Your task to perform on an android device: What's the weather? Image 0: 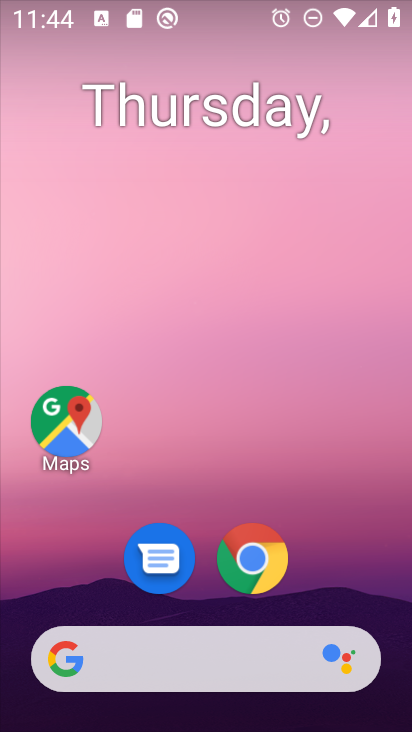
Step 0: drag from (49, 157) to (402, 218)
Your task to perform on an android device: What's the weather? Image 1: 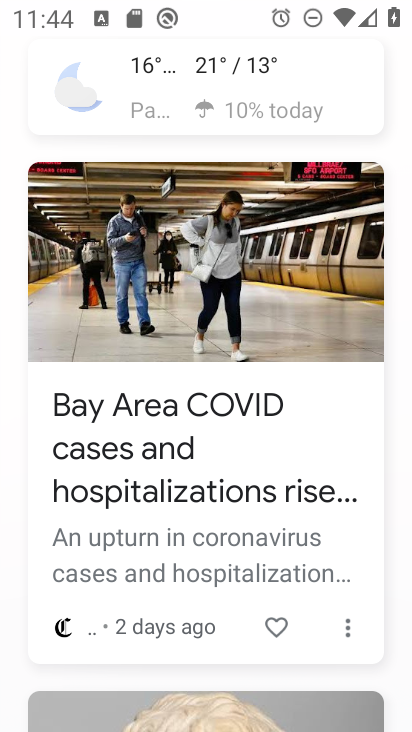
Step 1: click (254, 84)
Your task to perform on an android device: What's the weather? Image 2: 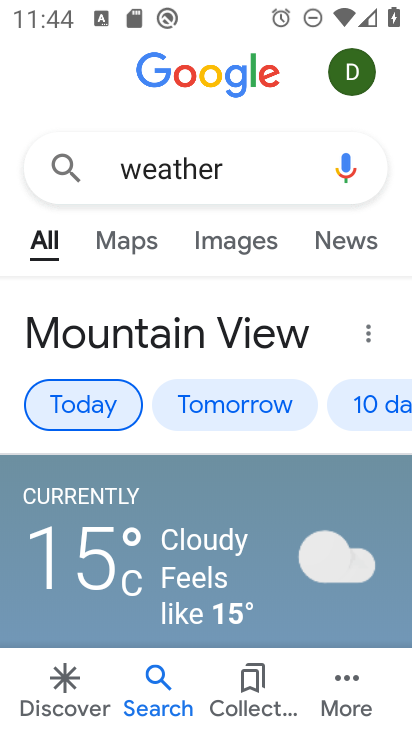
Step 2: task complete